Your task to perform on an android device: check google app version Image 0: 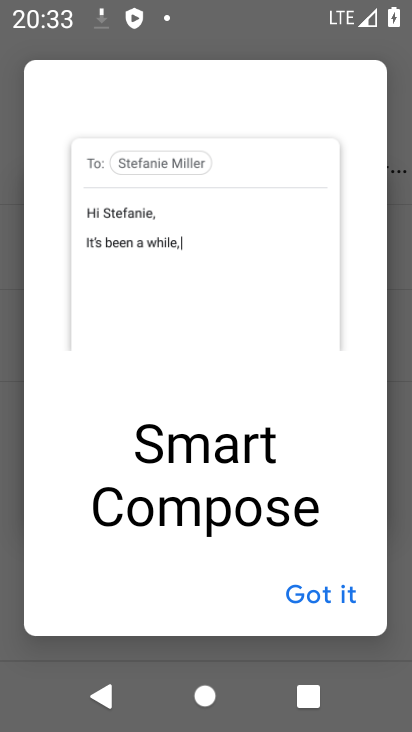
Step 0: press back button
Your task to perform on an android device: check google app version Image 1: 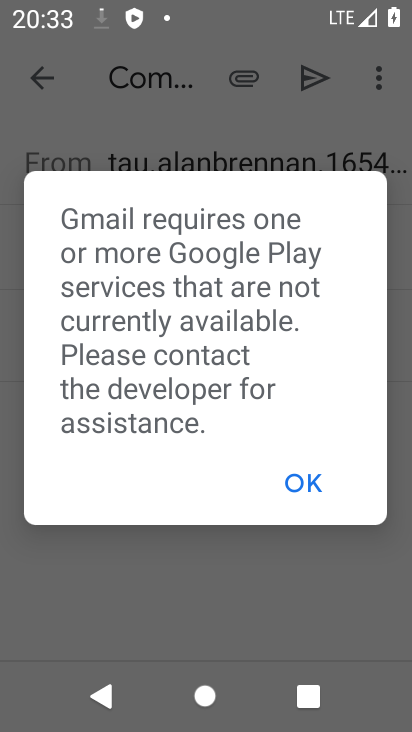
Step 1: click (315, 504)
Your task to perform on an android device: check google app version Image 2: 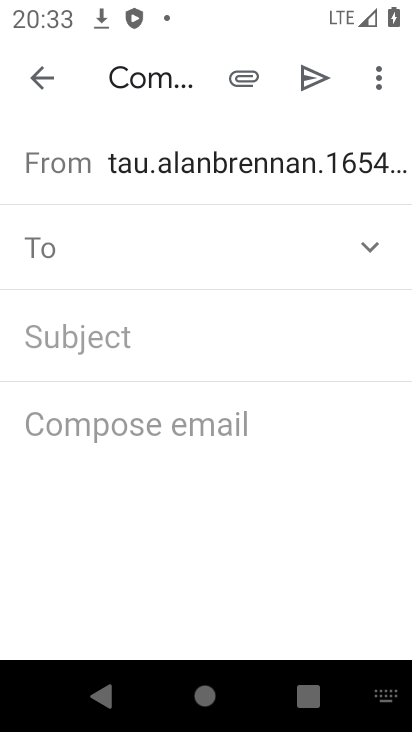
Step 2: press back button
Your task to perform on an android device: check google app version Image 3: 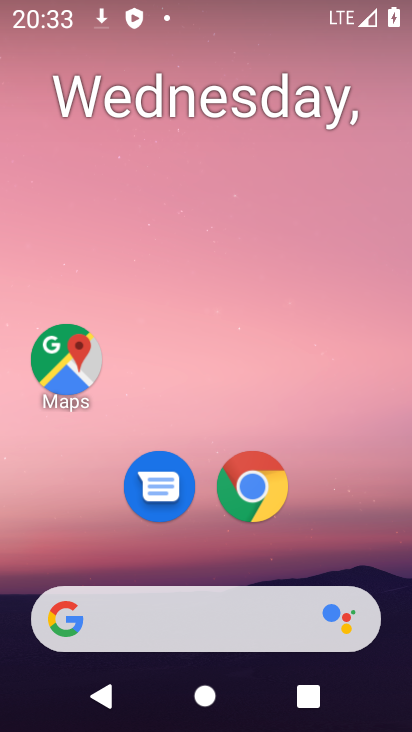
Step 3: drag from (181, 566) to (203, 83)
Your task to perform on an android device: check google app version Image 4: 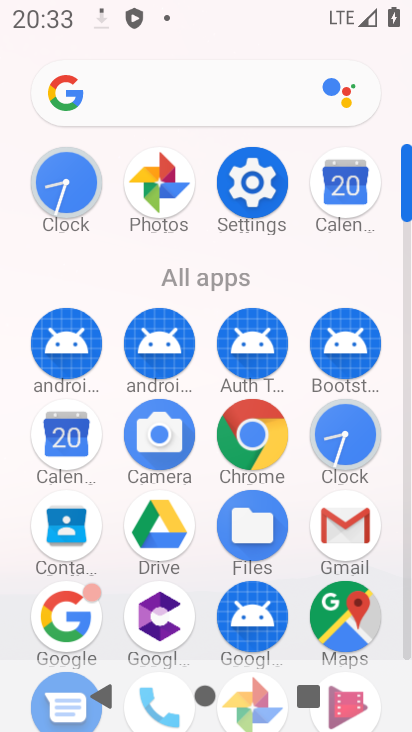
Step 4: click (65, 615)
Your task to perform on an android device: check google app version Image 5: 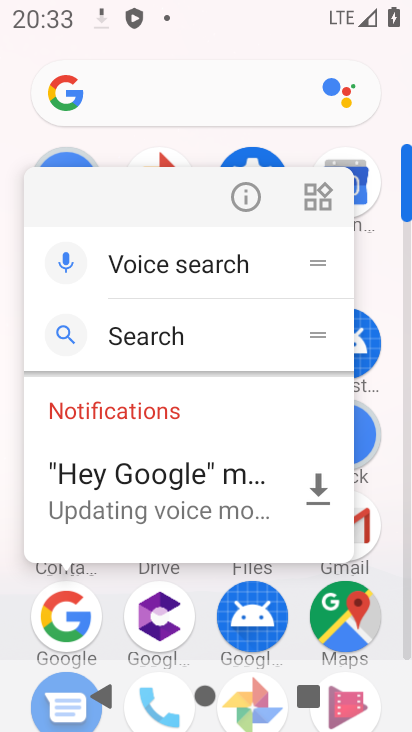
Step 5: click (247, 202)
Your task to perform on an android device: check google app version Image 6: 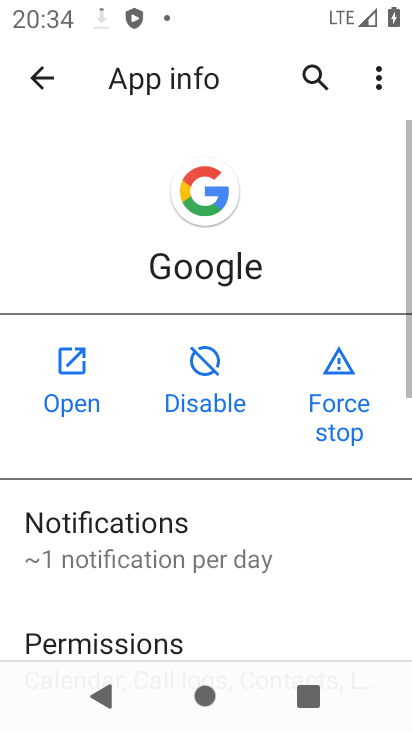
Step 6: drag from (132, 584) to (258, 30)
Your task to perform on an android device: check google app version Image 7: 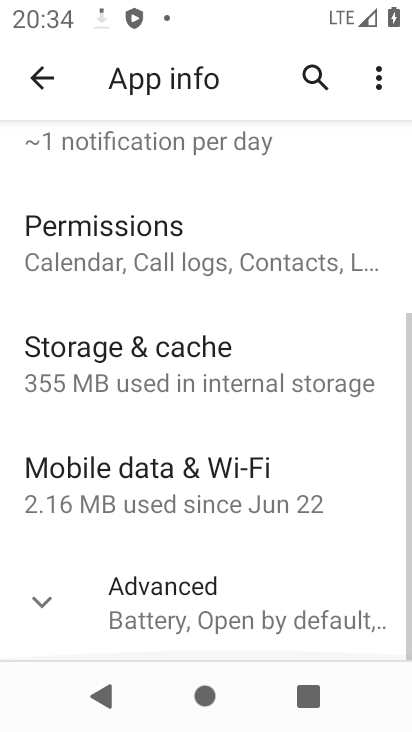
Step 7: drag from (173, 569) to (248, 22)
Your task to perform on an android device: check google app version Image 8: 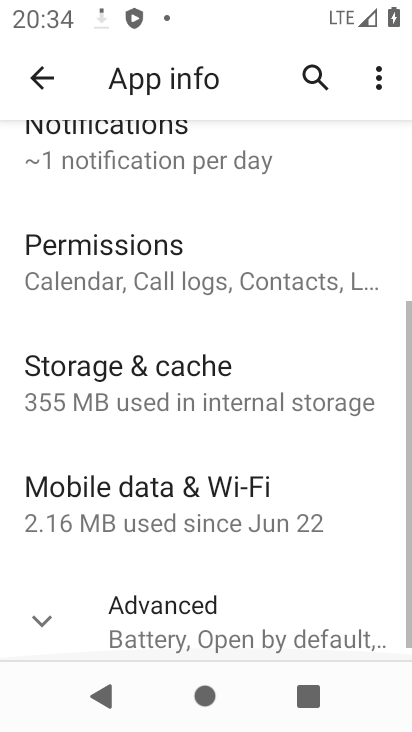
Step 8: click (176, 613)
Your task to perform on an android device: check google app version Image 9: 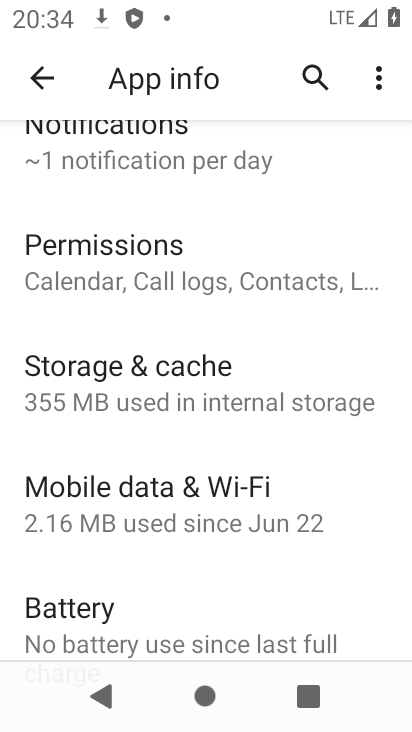
Step 9: task complete